Your task to perform on an android device: toggle improve location accuracy Image 0: 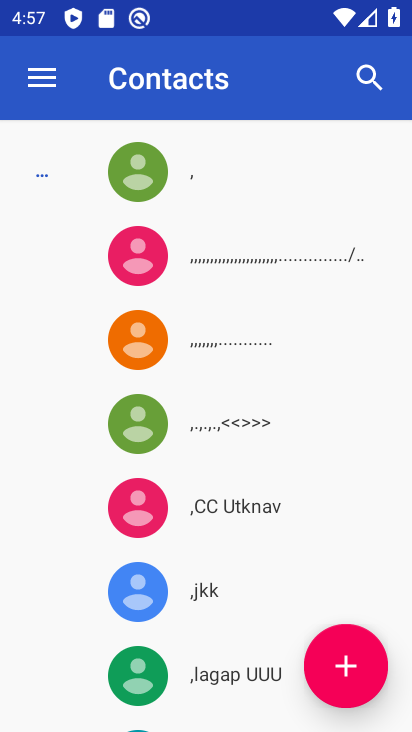
Step 0: press home button
Your task to perform on an android device: toggle improve location accuracy Image 1: 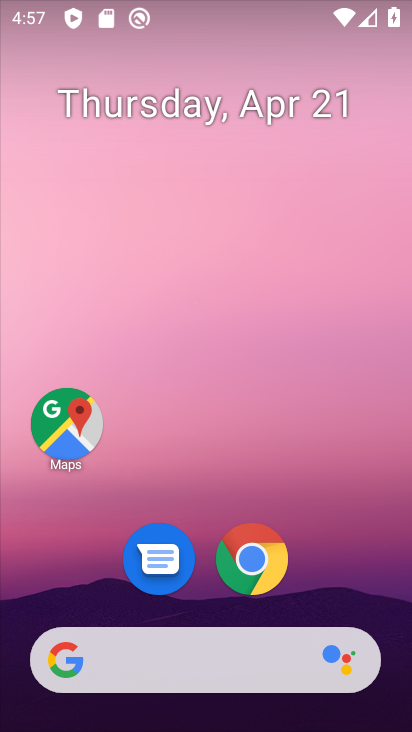
Step 1: drag from (351, 539) to (340, 104)
Your task to perform on an android device: toggle improve location accuracy Image 2: 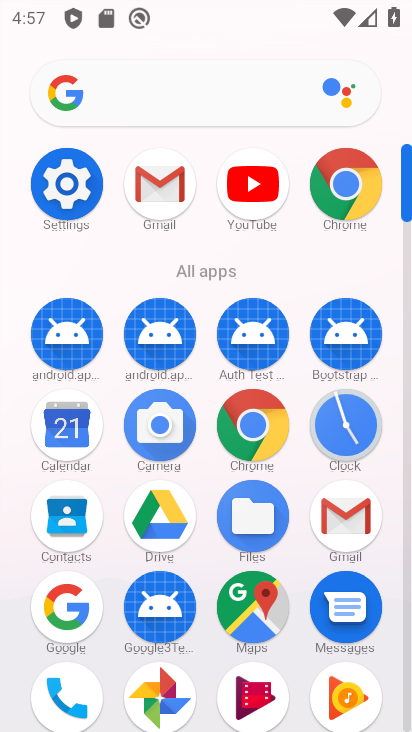
Step 2: click (53, 176)
Your task to perform on an android device: toggle improve location accuracy Image 3: 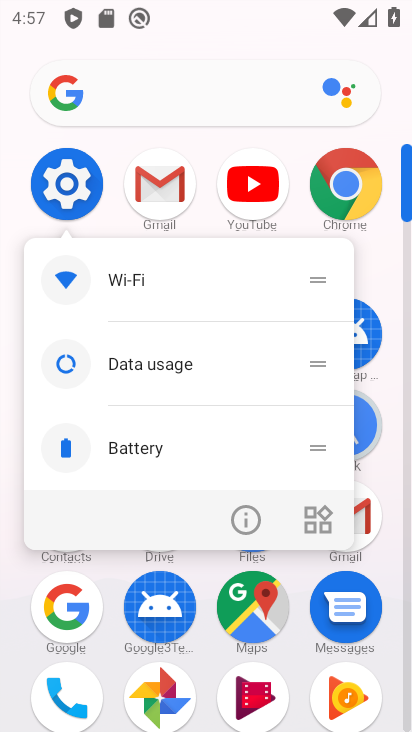
Step 3: click (53, 176)
Your task to perform on an android device: toggle improve location accuracy Image 4: 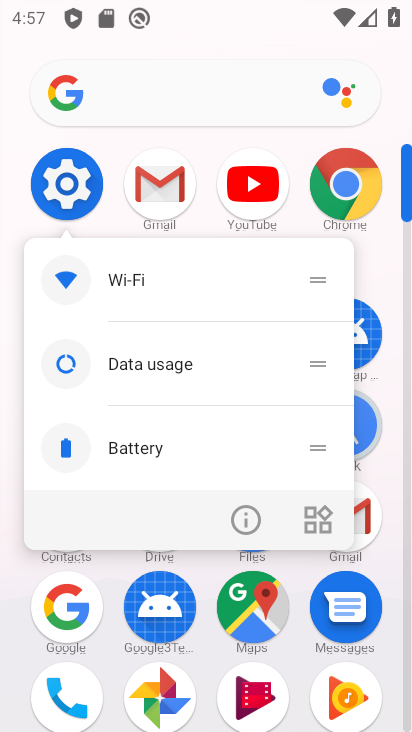
Step 4: click (53, 175)
Your task to perform on an android device: toggle improve location accuracy Image 5: 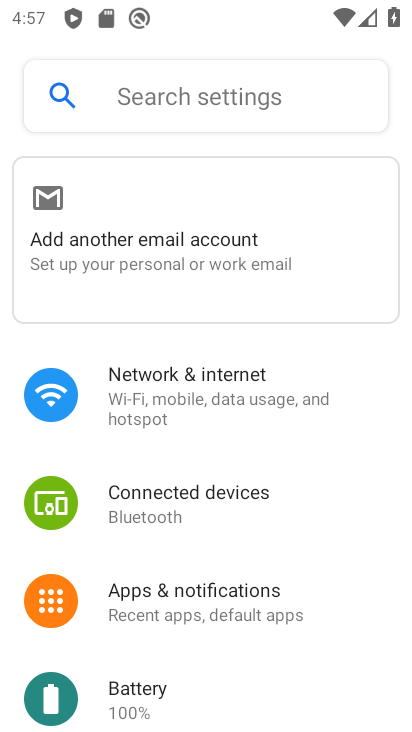
Step 5: drag from (204, 526) to (217, 313)
Your task to perform on an android device: toggle improve location accuracy Image 6: 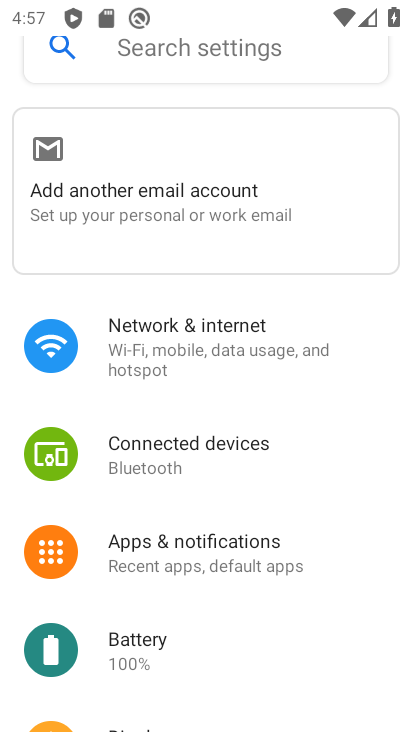
Step 6: drag from (223, 611) to (271, 286)
Your task to perform on an android device: toggle improve location accuracy Image 7: 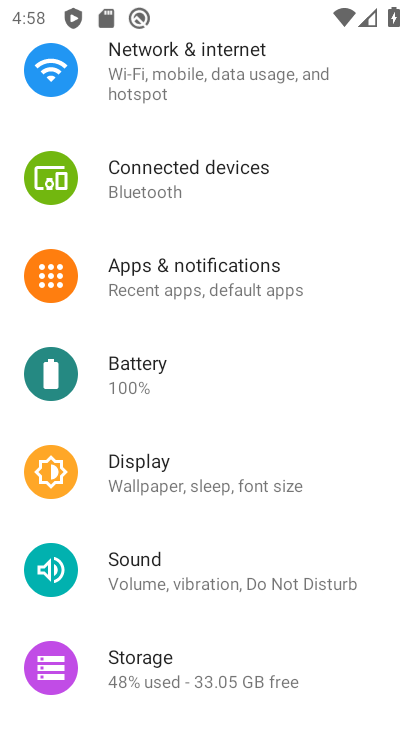
Step 7: drag from (241, 616) to (334, 220)
Your task to perform on an android device: toggle improve location accuracy Image 8: 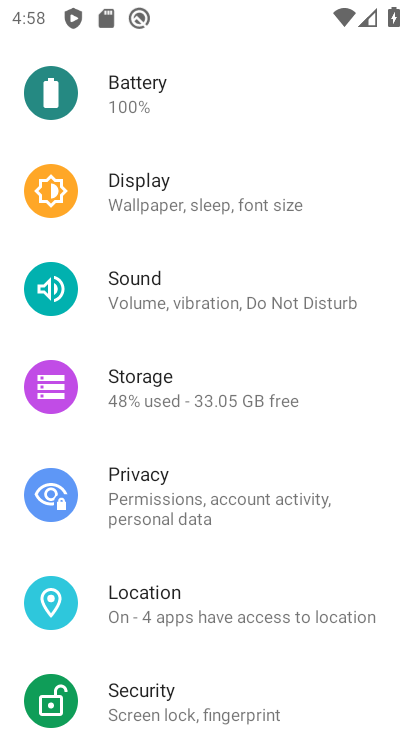
Step 8: drag from (244, 590) to (312, 276)
Your task to perform on an android device: toggle improve location accuracy Image 9: 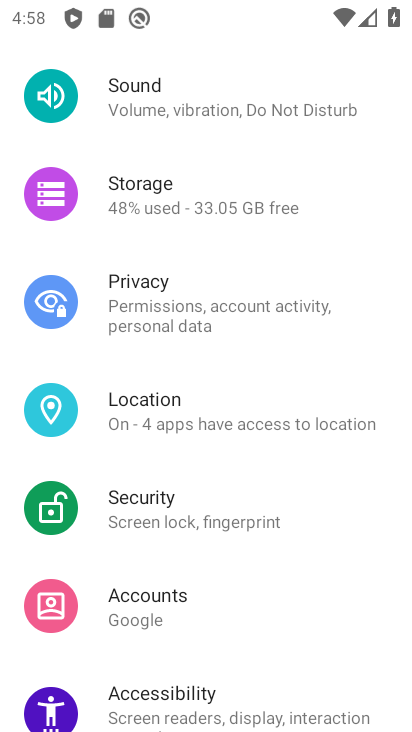
Step 9: click (241, 449)
Your task to perform on an android device: toggle improve location accuracy Image 10: 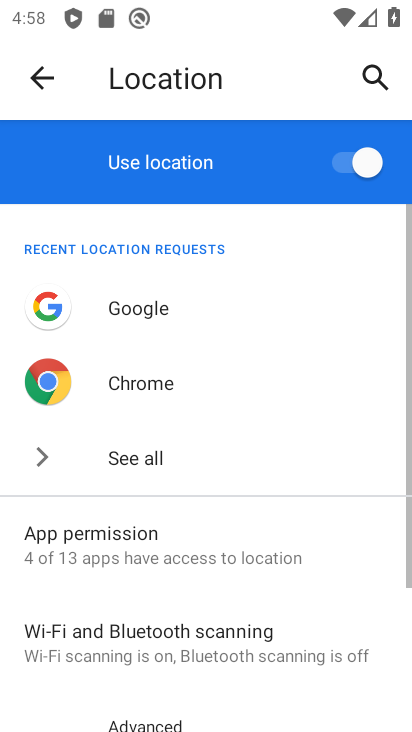
Step 10: drag from (254, 514) to (317, 236)
Your task to perform on an android device: toggle improve location accuracy Image 11: 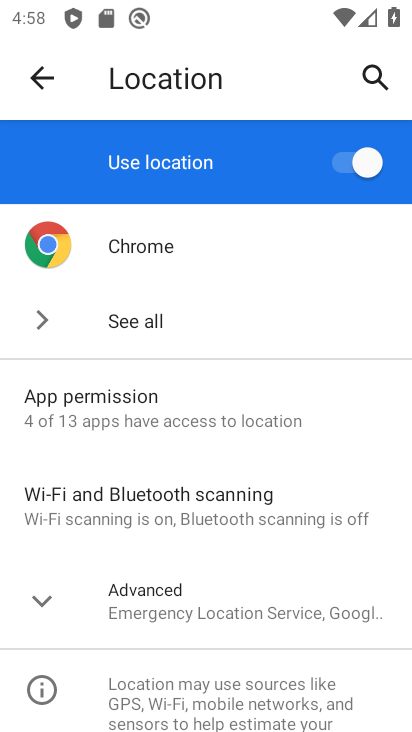
Step 11: drag from (243, 564) to (298, 237)
Your task to perform on an android device: toggle improve location accuracy Image 12: 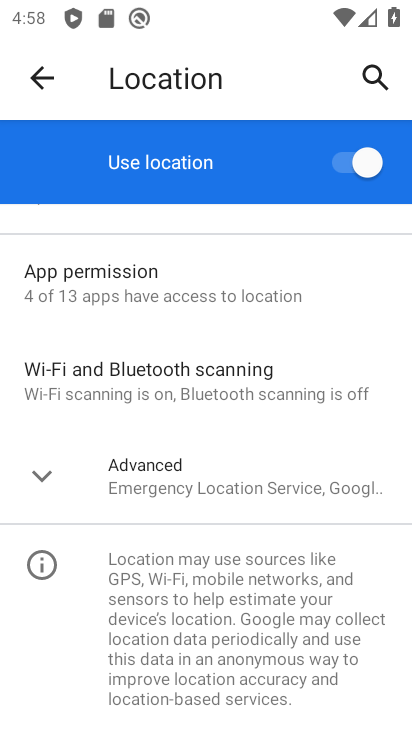
Step 12: click (180, 477)
Your task to perform on an android device: toggle improve location accuracy Image 13: 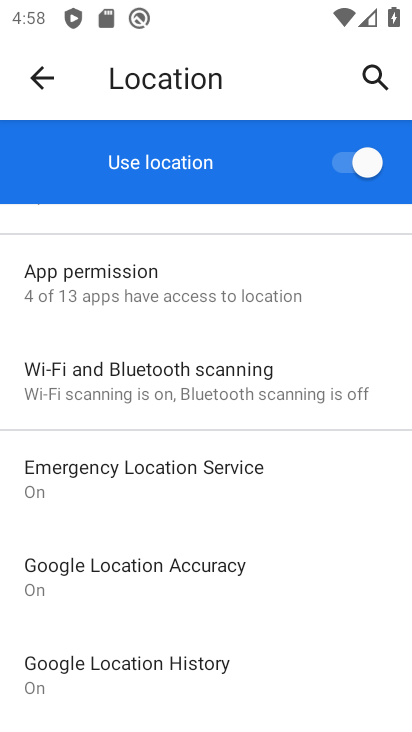
Step 13: drag from (107, 572) to (125, 289)
Your task to perform on an android device: toggle improve location accuracy Image 14: 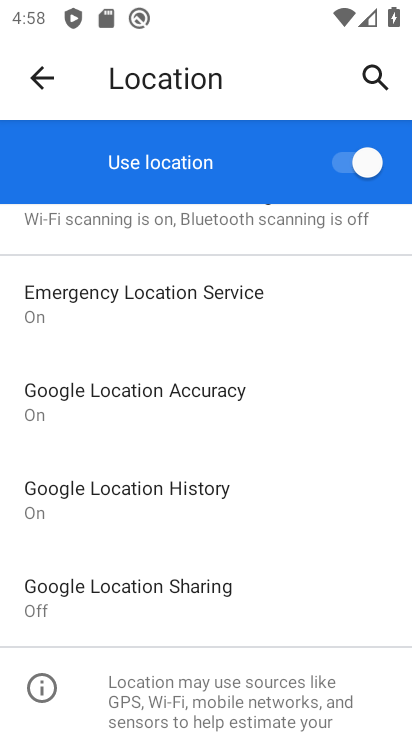
Step 14: click (116, 378)
Your task to perform on an android device: toggle improve location accuracy Image 15: 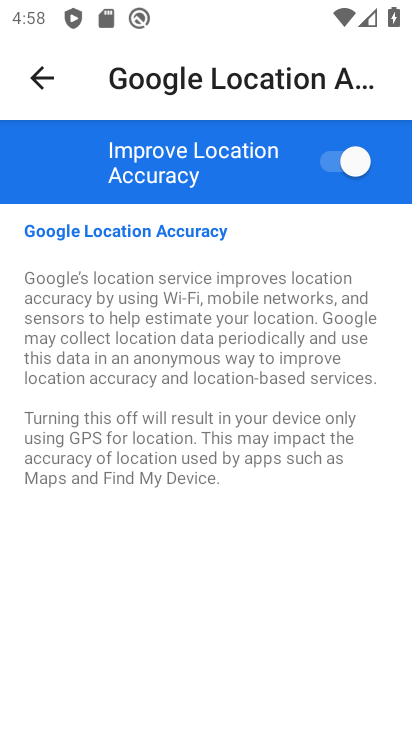
Step 15: click (328, 162)
Your task to perform on an android device: toggle improve location accuracy Image 16: 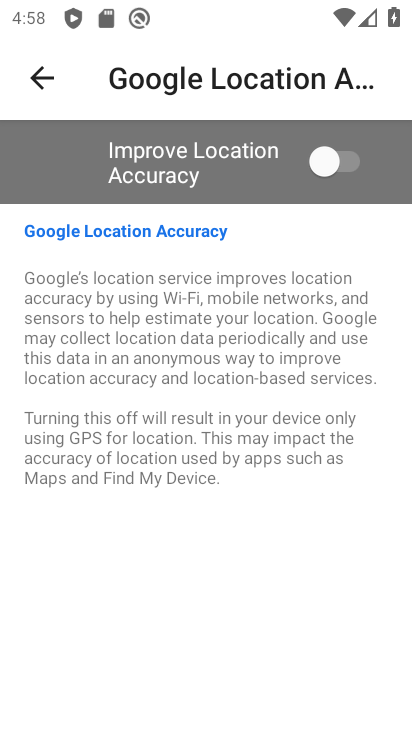
Step 16: task complete